Your task to perform on an android device: Open settings on Google Maps Image 0: 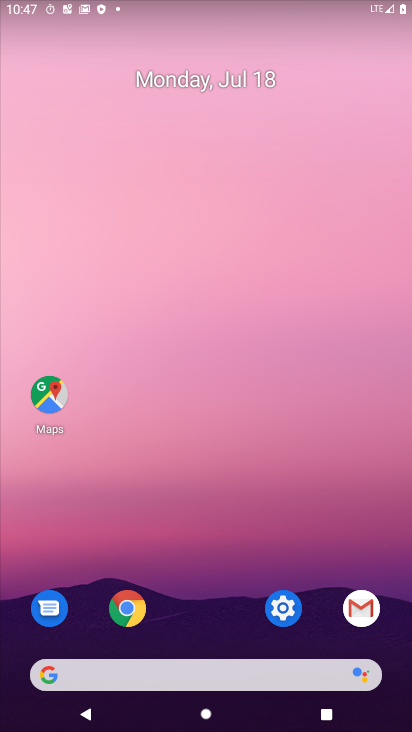
Step 0: click (38, 387)
Your task to perform on an android device: Open settings on Google Maps Image 1: 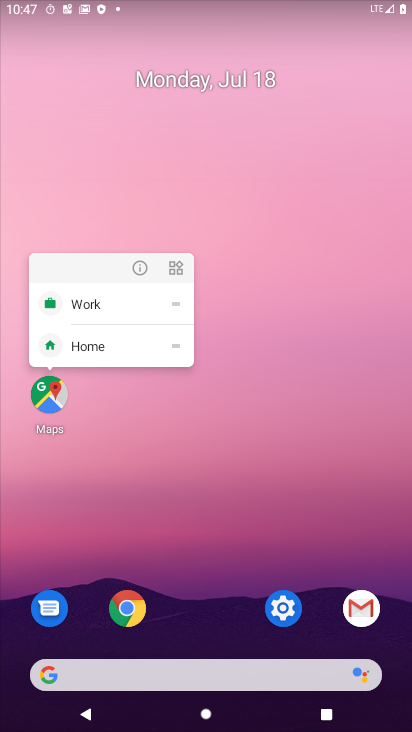
Step 1: click (60, 389)
Your task to perform on an android device: Open settings on Google Maps Image 2: 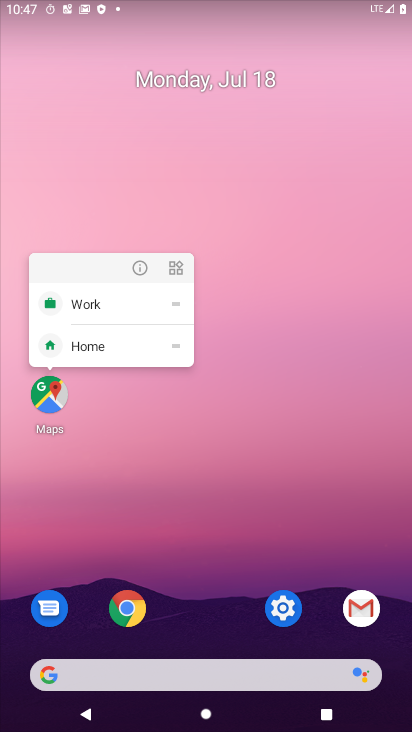
Step 2: click (60, 390)
Your task to perform on an android device: Open settings on Google Maps Image 3: 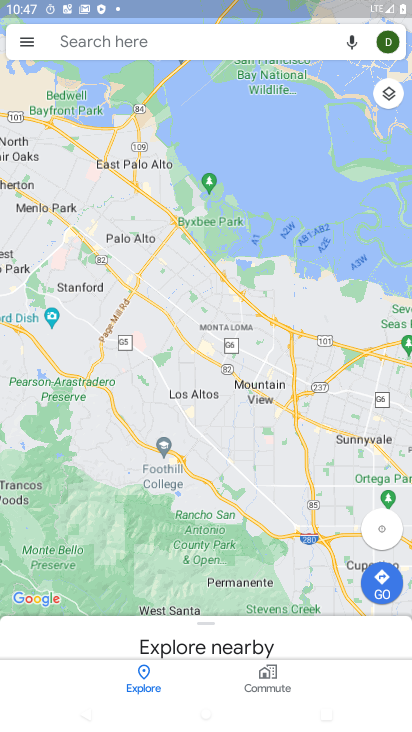
Step 3: click (27, 43)
Your task to perform on an android device: Open settings on Google Maps Image 4: 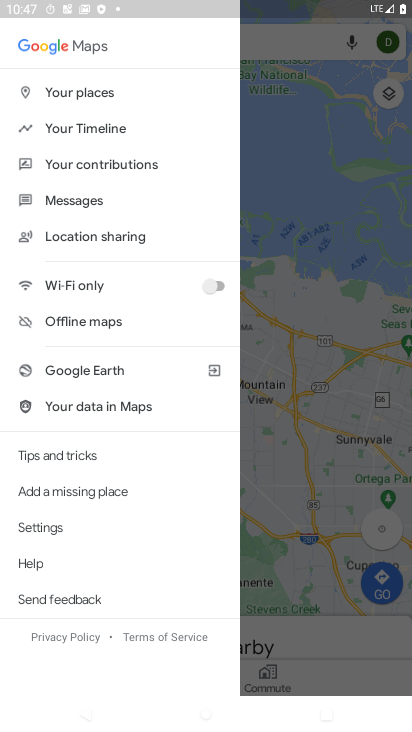
Step 4: click (66, 528)
Your task to perform on an android device: Open settings on Google Maps Image 5: 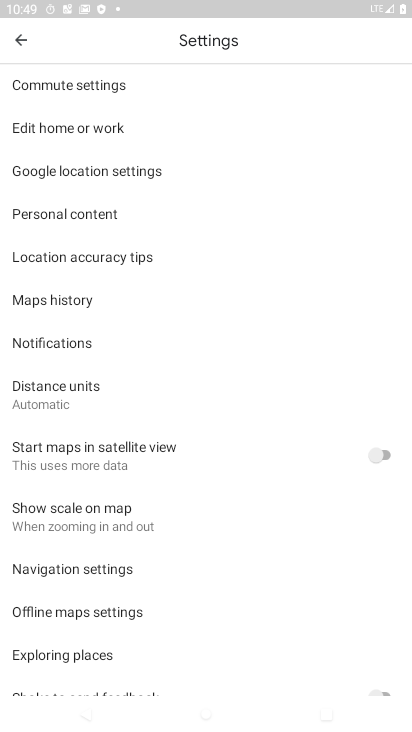
Step 5: task complete